Your task to perform on an android device: check android version Image 0: 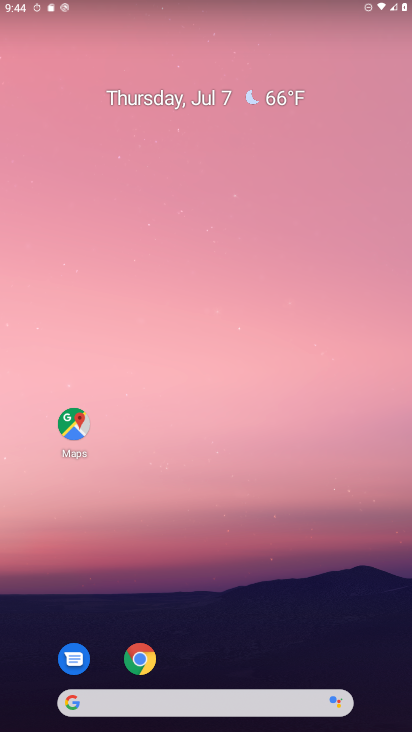
Step 0: drag from (384, 650) to (266, 96)
Your task to perform on an android device: check android version Image 1: 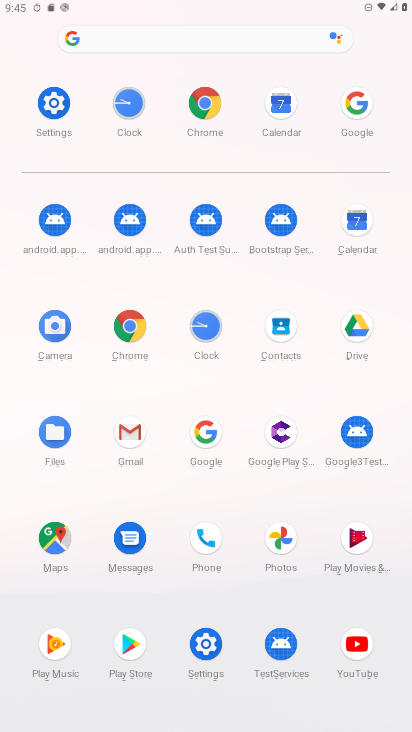
Step 1: click (216, 641)
Your task to perform on an android device: check android version Image 2: 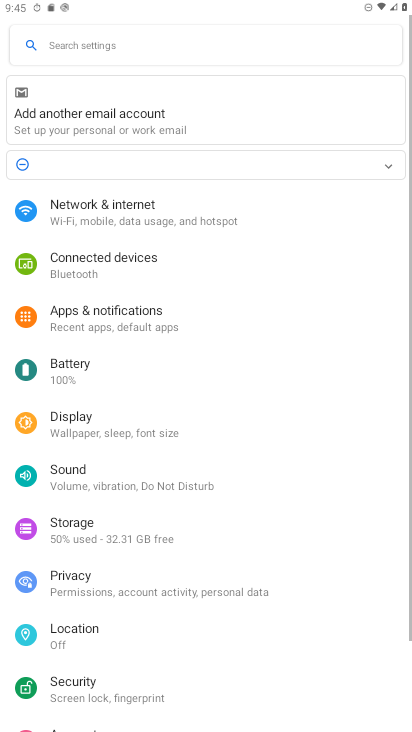
Step 2: drag from (187, 695) to (198, 138)
Your task to perform on an android device: check android version Image 3: 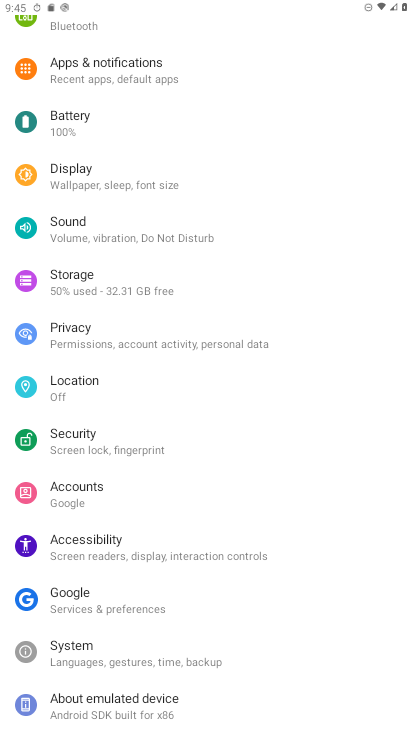
Step 3: click (118, 713)
Your task to perform on an android device: check android version Image 4: 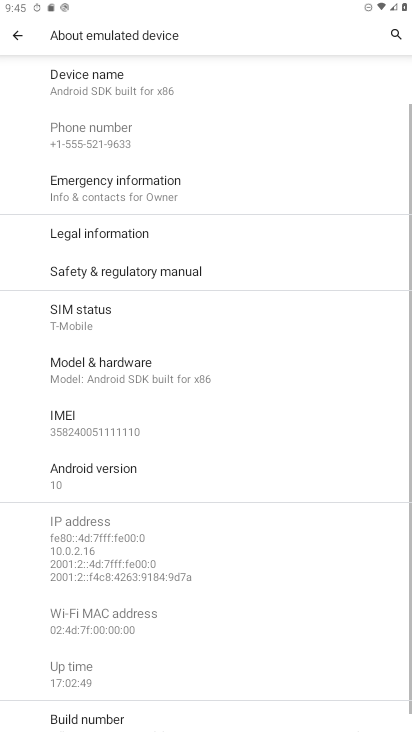
Step 4: click (105, 468)
Your task to perform on an android device: check android version Image 5: 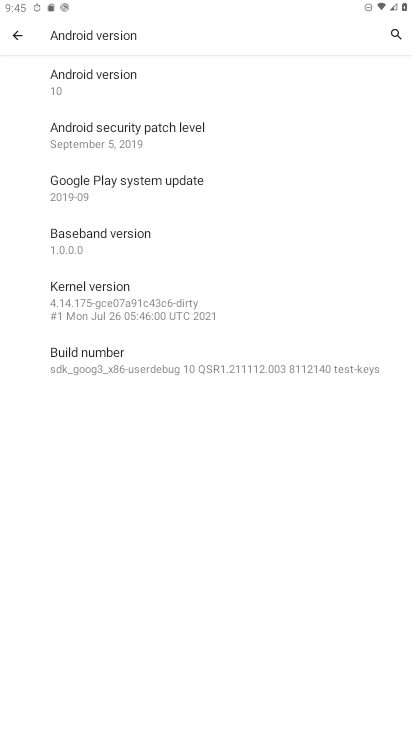
Step 5: click (143, 83)
Your task to perform on an android device: check android version Image 6: 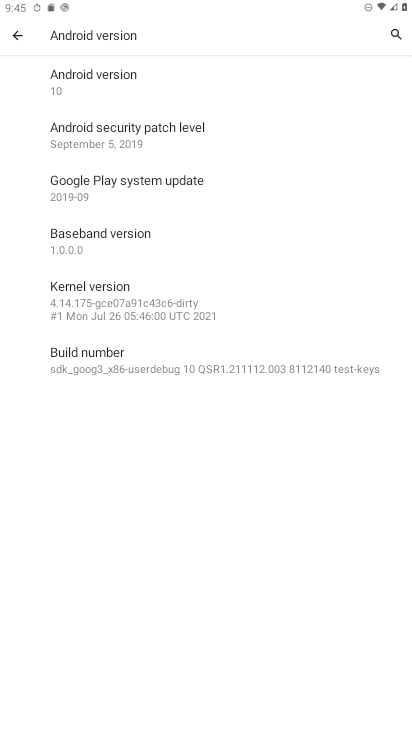
Step 6: task complete